Your task to perform on an android device: Go to network settings Image 0: 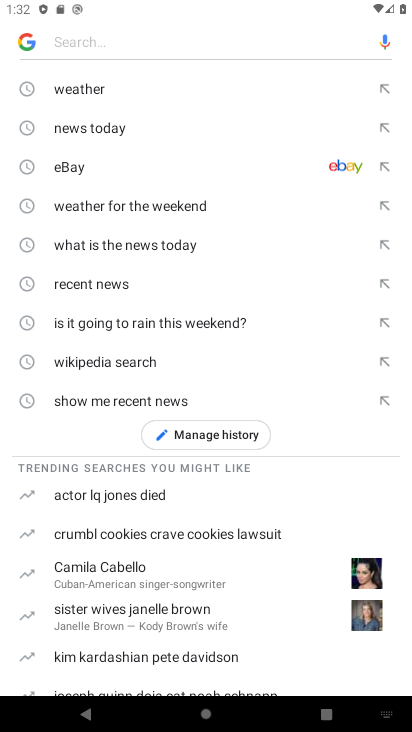
Step 0: press home button
Your task to perform on an android device: Go to network settings Image 1: 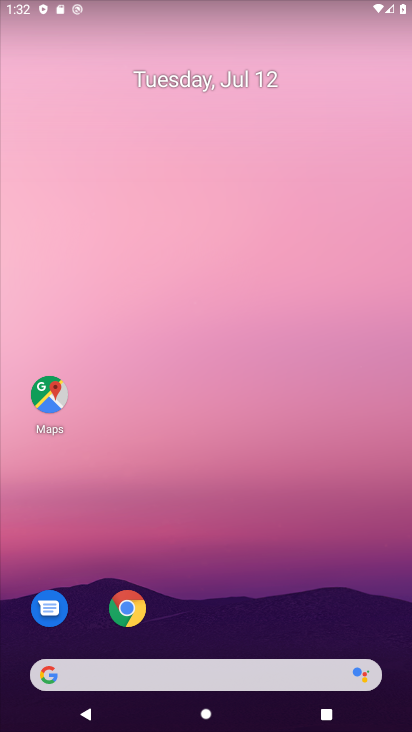
Step 1: drag from (283, 623) to (251, 12)
Your task to perform on an android device: Go to network settings Image 2: 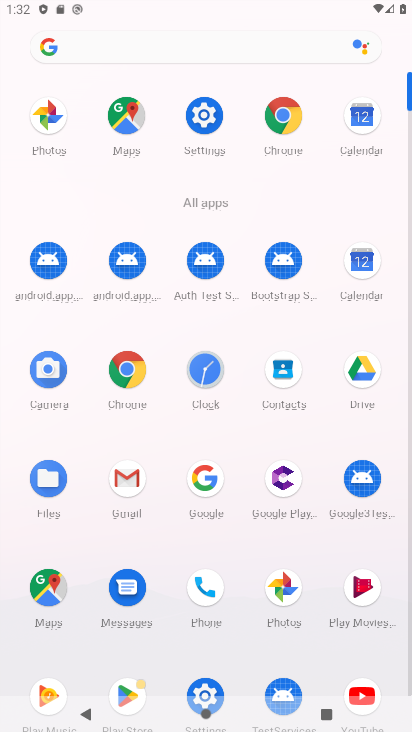
Step 2: drag from (230, 455) to (223, 298)
Your task to perform on an android device: Go to network settings Image 3: 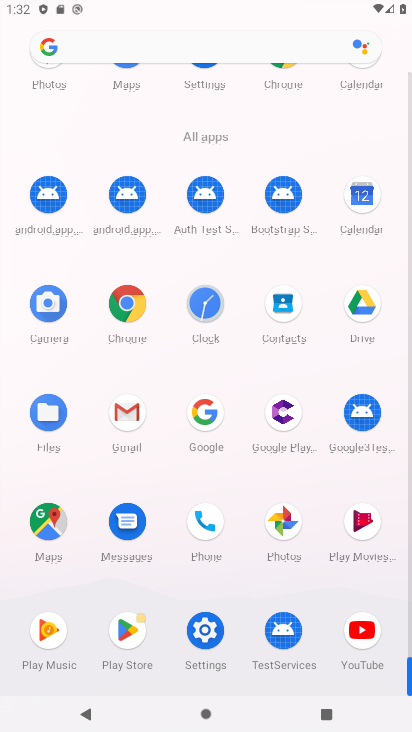
Step 3: click (212, 630)
Your task to perform on an android device: Go to network settings Image 4: 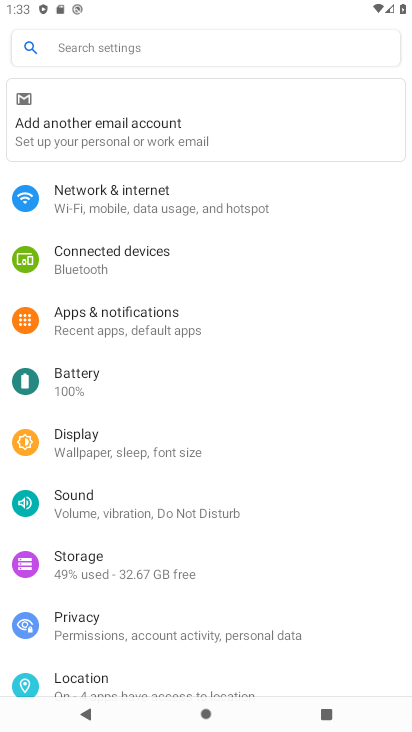
Step 4: click (100, 210)
Your task to perform on an android device: Go to network settings Image 5: 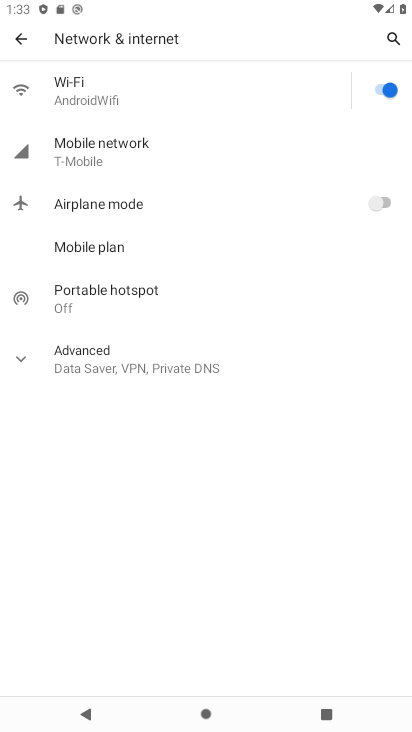
Step 5: task complete